Your task to perform on an android device: turn off data saver in the chrome app Image 0: 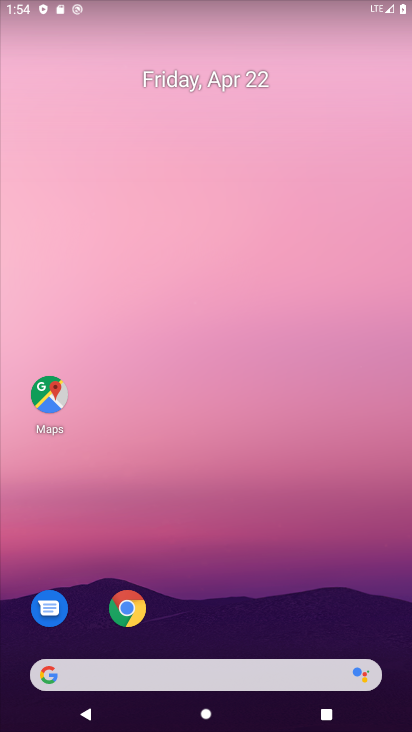
Step 0: drag from (241, 683) to (246, 164)
Your task to perform on an android device: turn off data saver in the chrome app Image 1: 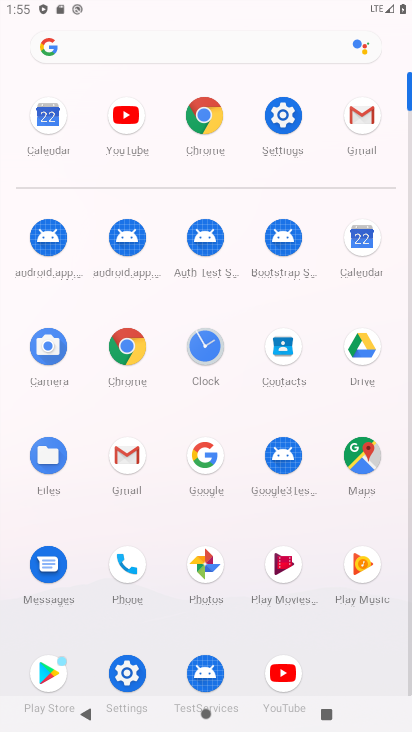
Step 1: click (207, 129)
Your task to perform on an android device: turn off data saver in the chrome app Image 2: 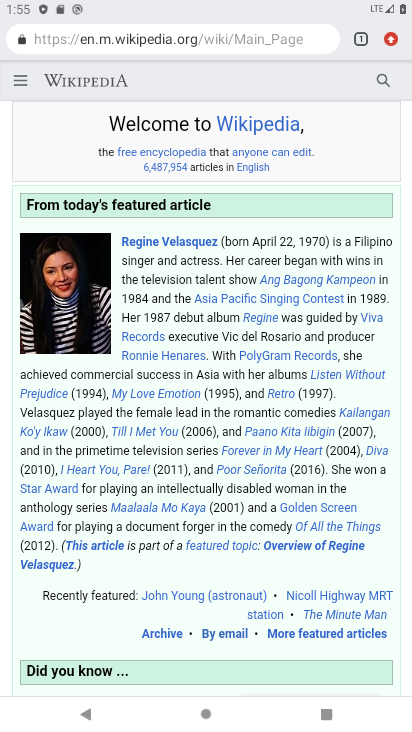
Step 2: click (397, 43)
Your task to perform on an android device: turn off data saver in the chrome app Image 3: 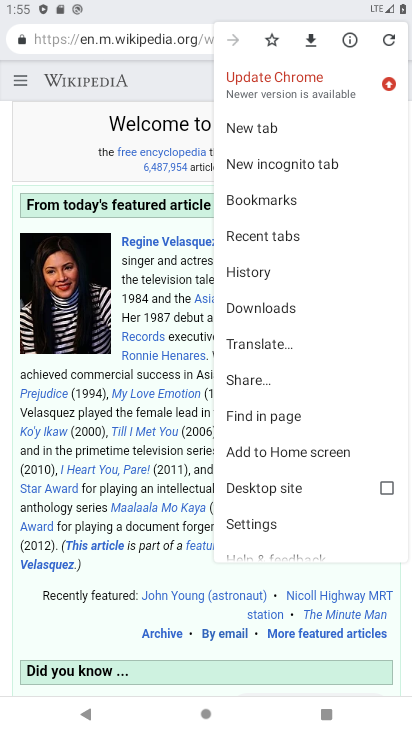
Step 3: click (261, 518)
Your task to perform on an android device: turn off data saver in the chrome app Image 4: 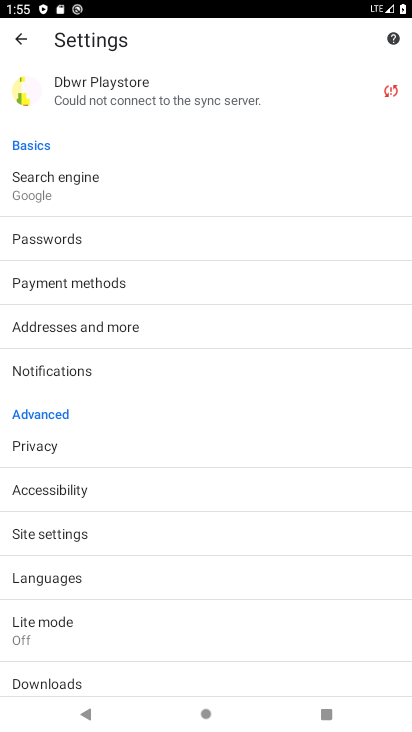
Step 4: click (70, 613)
Your task to perform on an android device: turn off data saver in the chrome app Image 5: 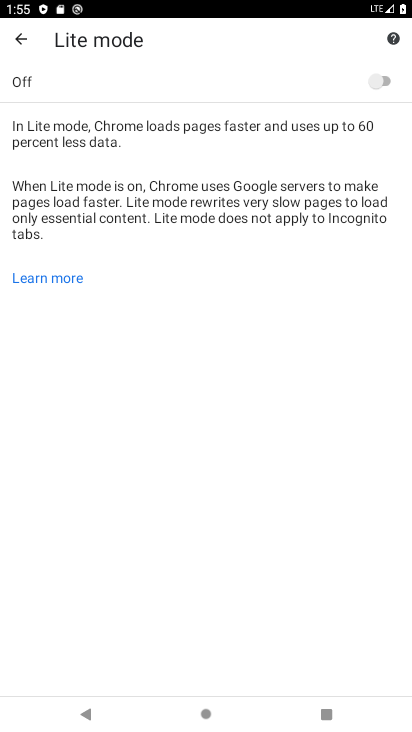
Step 5: click (325, 82)
Your task to perform on an android device: turn off data saver in the chrome app Image 6: 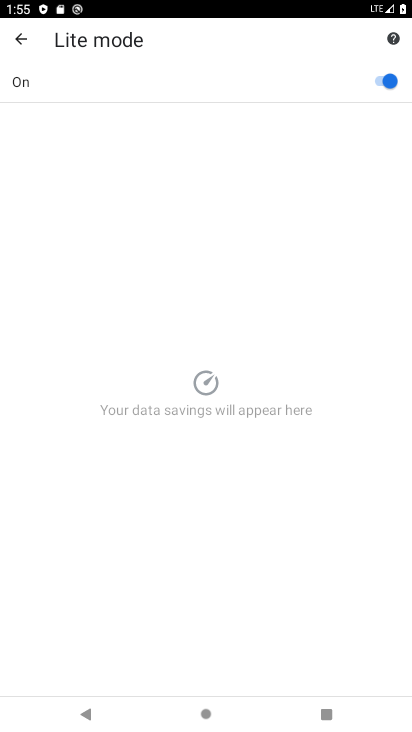
Step 6: click (325, 82)
Your task to perform on an android device: turn off data saver in the chrome app Image 7: 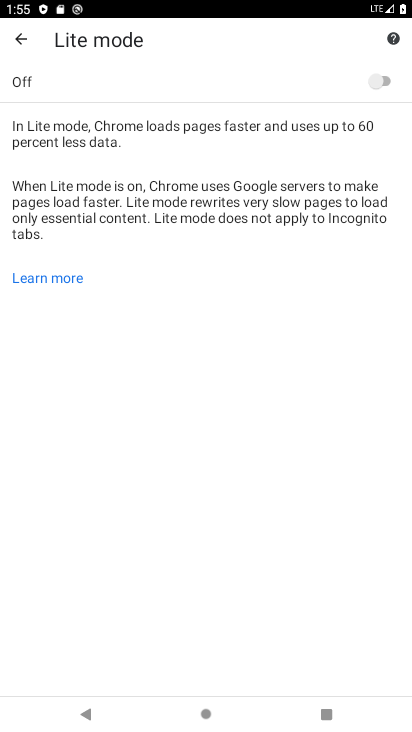
Step 7: task complete